Your task to perform on an android device: Play the last video I watched on Youtube Image 0: 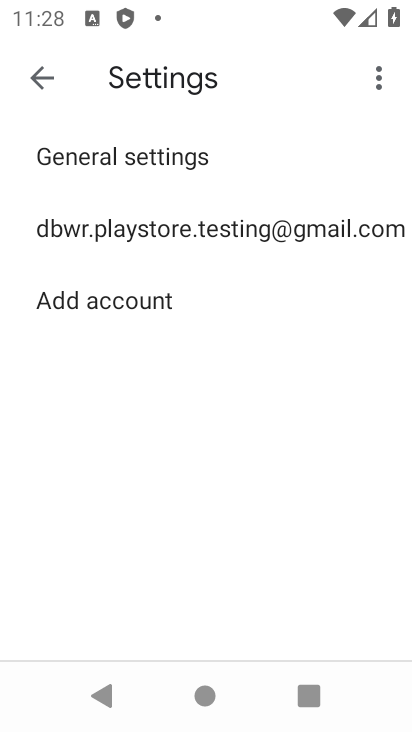
Step 0: press home button
Your task to perform on an android device: Play the last video I watched on Youtube Image 1: 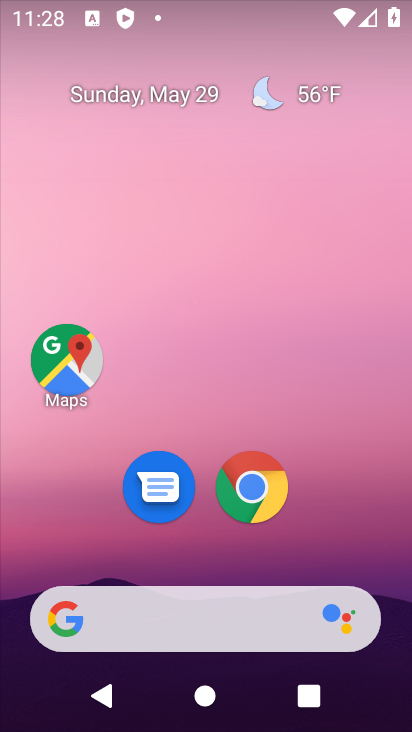
Step 1: drag from (278, 634) to (257, 121)
Your task to perform on an android device: Play the last video I watched on Youtube Image 2: 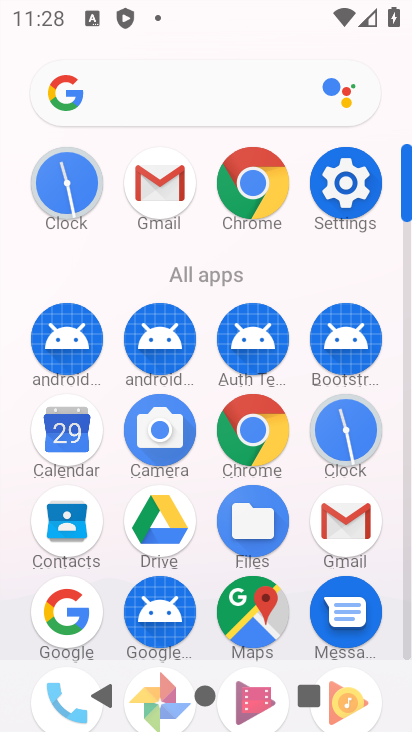
Step 2: drag from (249, 516) to (259, 130)
Your task to perform on an android device: Play the last video I watched on Youtube Image 3: 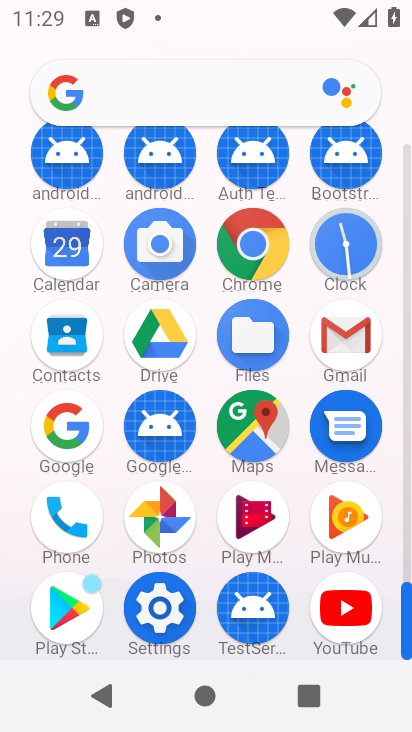
Step 3: click (351, 618)
Your task to perform on an android device: Play the last video I watched on Youtube Image 4: 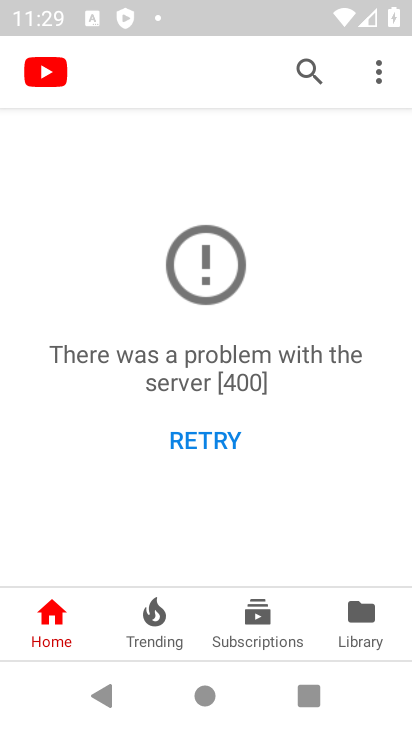
Step 4: click (366, 630)
Your task to perform on an android device: Play the last video I watched on Youtube Image 5: 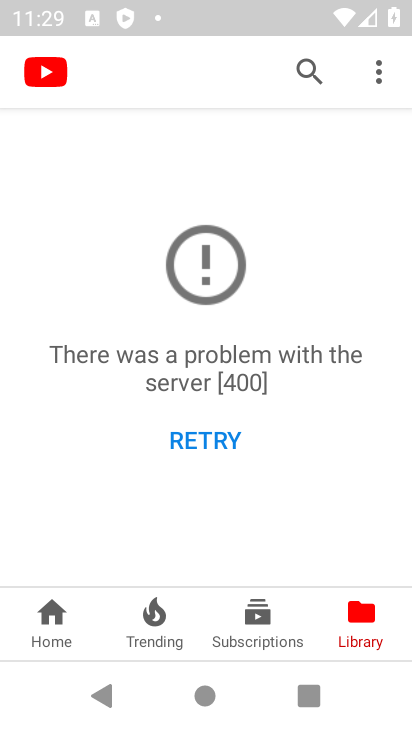
Step 5: task complete